Your task to perform on an android device: turn on the 24-hour format for clock Image 0: 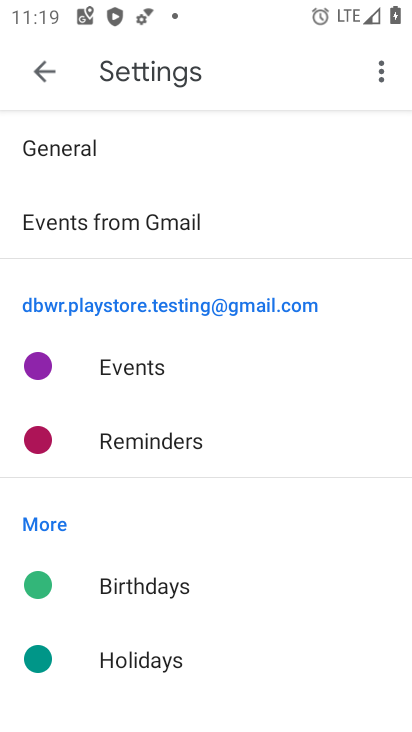
Step 0: press home button
Your task to perform on an android device: turn on the 24-hour format for clock Image 1: 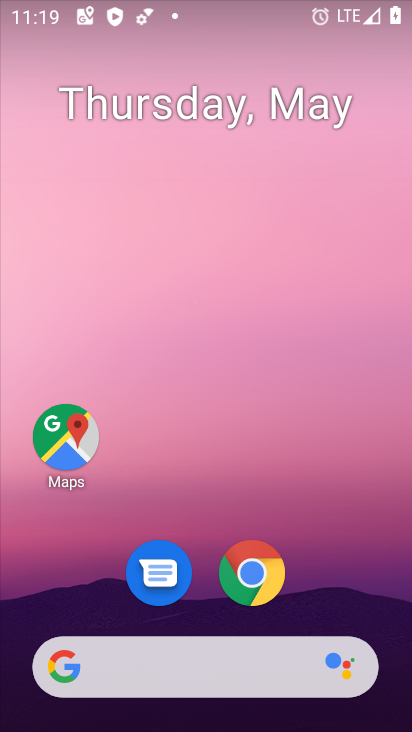
Step 1: drag from (203, 611) to (190, 231)
Your task to perform on an android device: turn on the 24-hour format for clock Image 2: 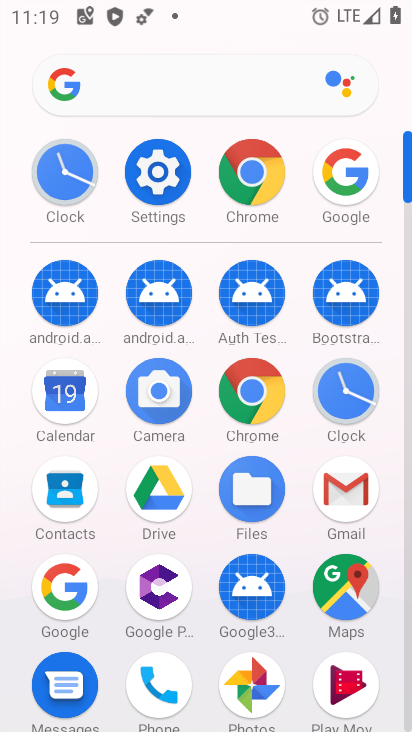
Step 2: click (348, 372)
Your task to perform on an android device: turn on the 24-hour format for clock Image 3: 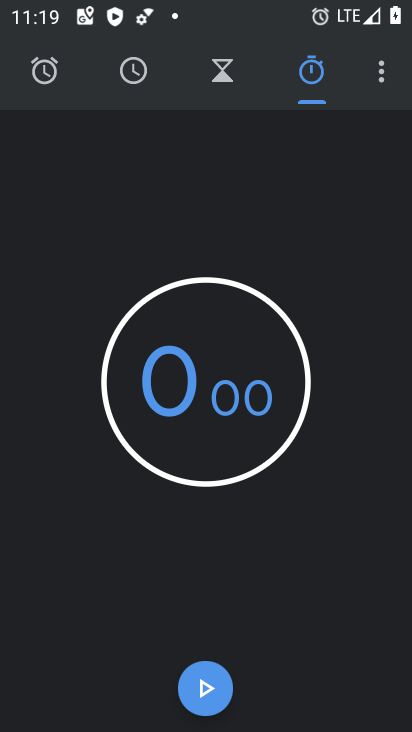
Step 3: click (366, 82)
Your task to perform on an android device: turn on the 24-hour format for clock Image 4: 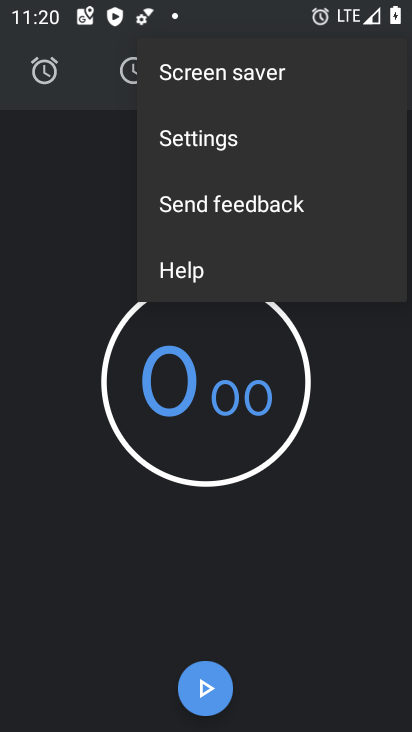
Step 4: click (273, 145)
Your task to perform on an android device: turn on the 24-hour format for clock Image 5: 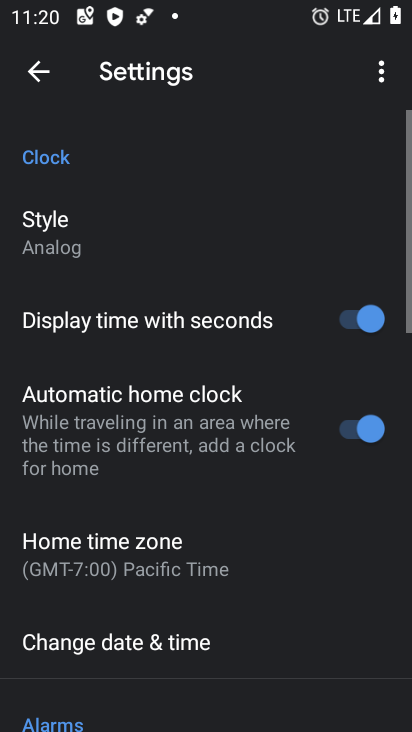
Step 5: click (220, 627)
Your task to perform on an android device: turn on the 24-hour format for clock Image 6: 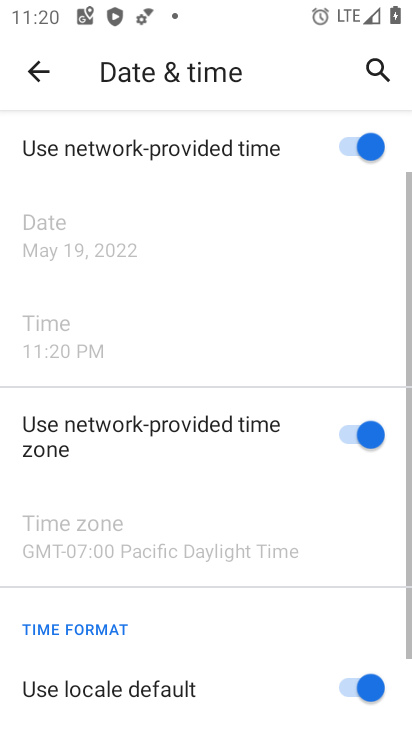
Step 6: drag from (230, 604) to (218, 219)
Your task to perform on an android device: turn on the 24-hour format for clock Image 7: 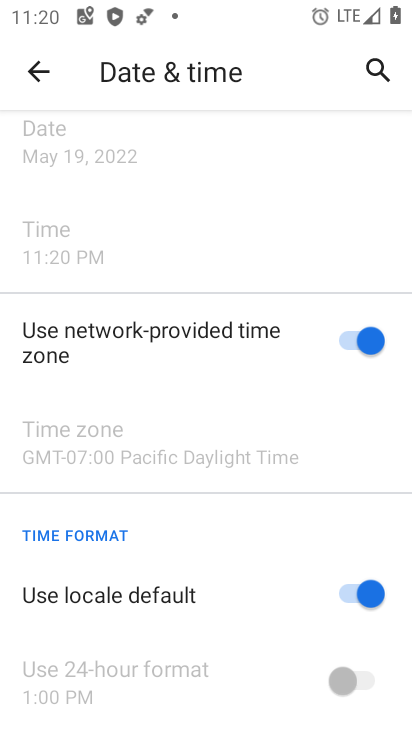
Step 7: click (342, 594)
Your task to perform on an android device: turn on the 24-hour format for clock Image 8: 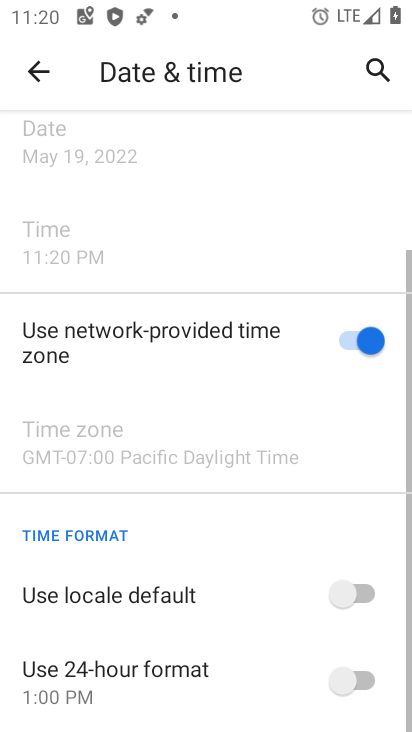
Step 8: click (371, 677)
Your task to perform on an android device: turn on the 24-hour format for clock Image 9: 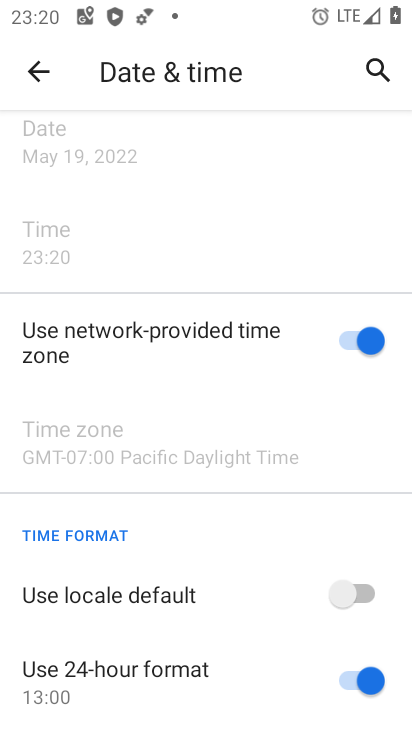
Step 9: task complete